Your task to perform on an android device: turn vacation reply on in the gmail app Image 0: 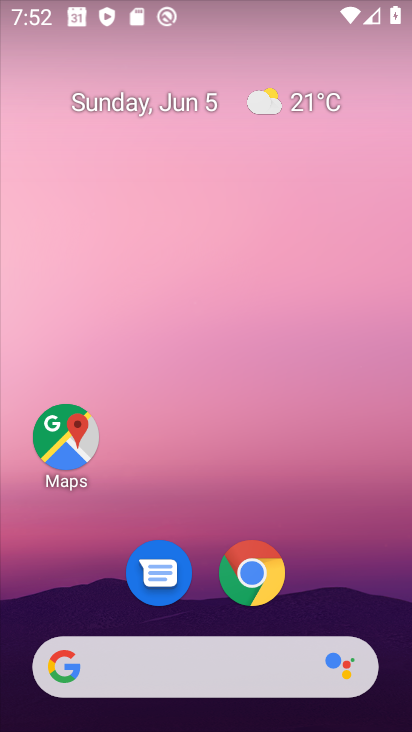
Step 0: drag from (289, 596) to (279, 291)
Your task to perform on an android device: turn vacation reply on in the gmail app Image 1: 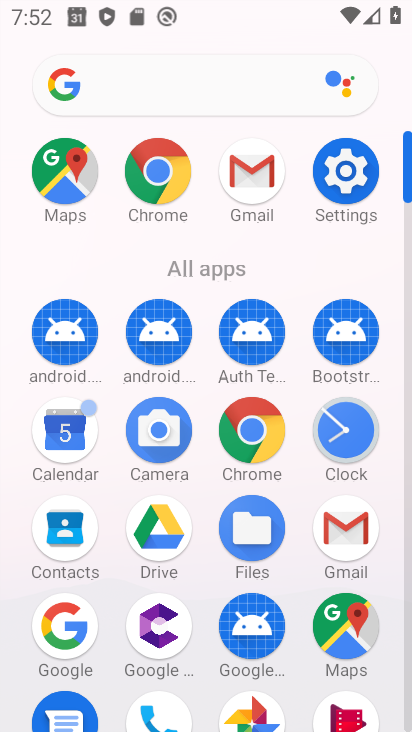
Step 1: click (251, 183)
Your task to perform on an android device: turn vacation reply on in the gmail app Image 2: 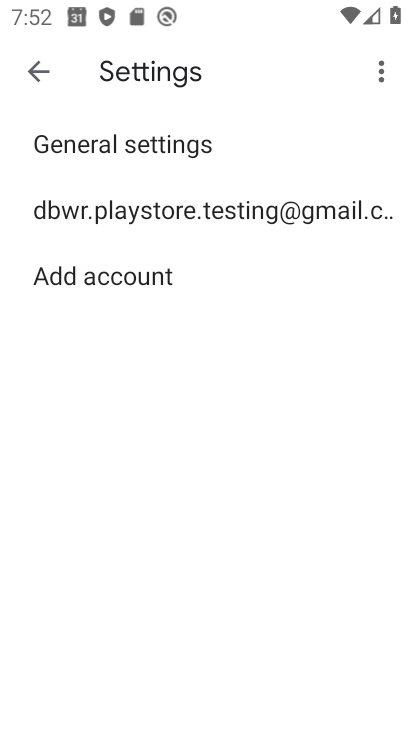
Step 2: click (247, 209)
Your task to perform on an android device: turn vacation reply on in the gmail app Image 3: 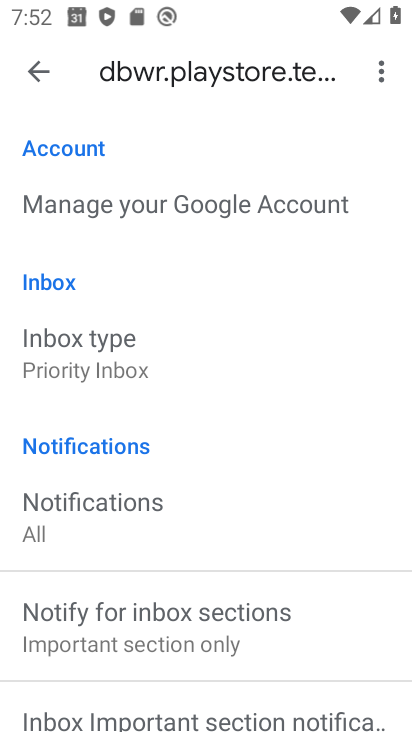
Step 3: drag from (198, 603) to (240, 247)
Your task to perform on an android device: turn vacation reply on in the gmail app Image 4: 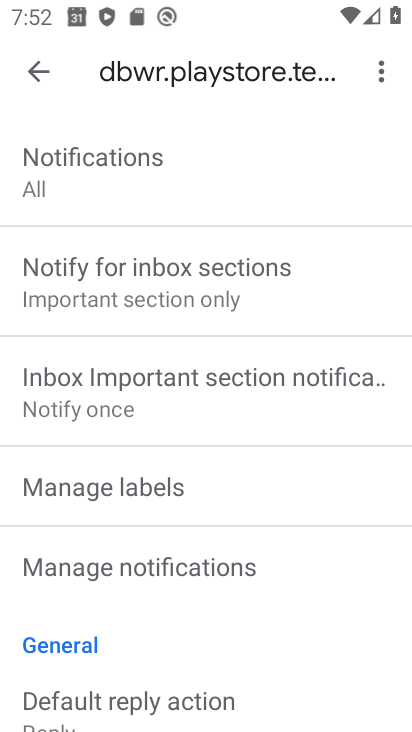
Step 4: drag from (201, 587) to (273, 209)
Your task to perform on an android device: turn vacation reply on in the gmail app Image 5: 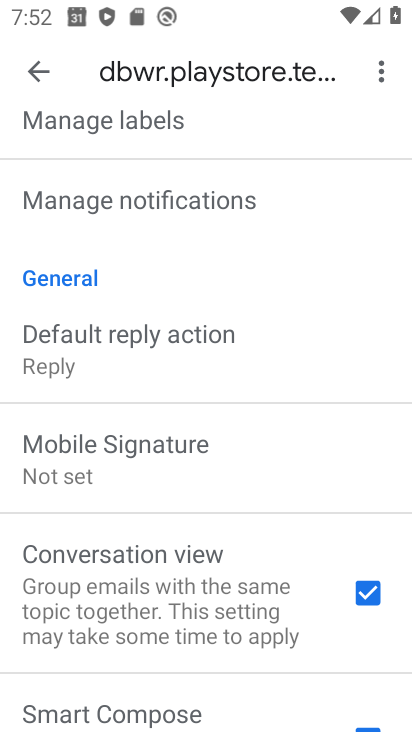
Step 5: drag from (213, 563) to (268, 188)
Your task to perform on an android device: turn vacation reply on in the gmail app Image 6: 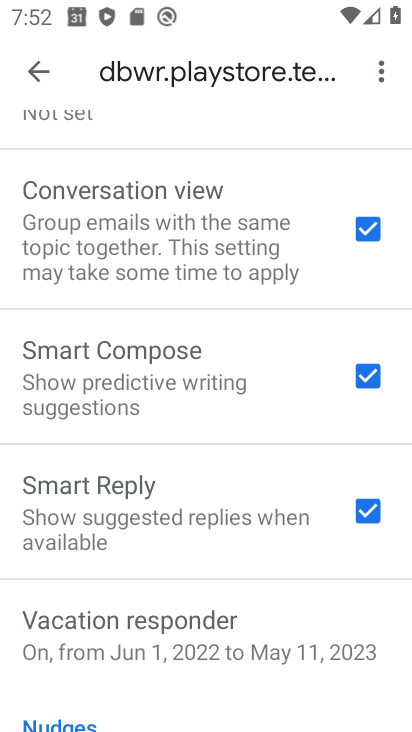
Step 6: click (135, 630)
Your task to perform on an android device: turn vacation reply on in the gmail app Image 7: 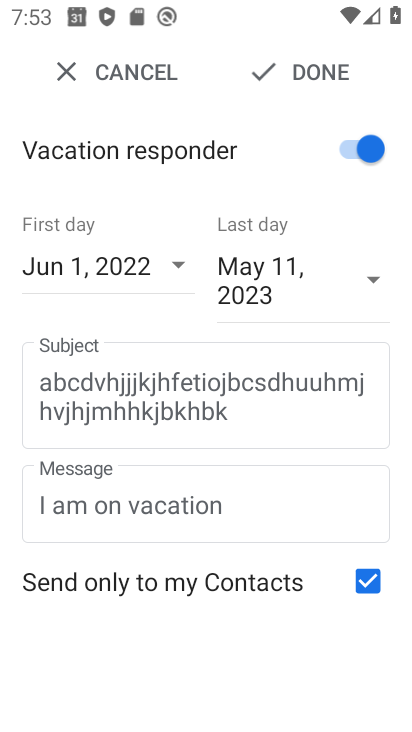
Step 7: task complete